Your task to perform on an android device: open app "Cash App" Image 0: 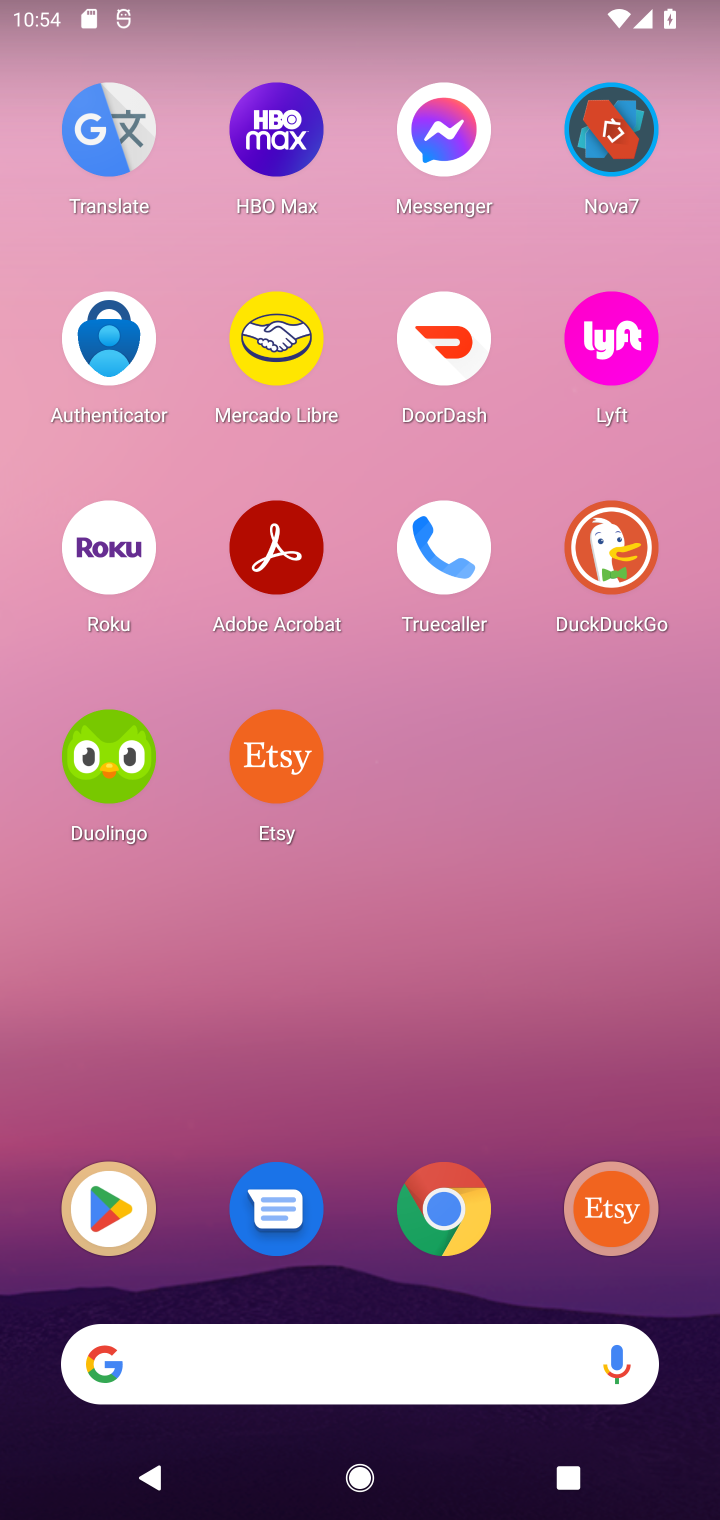
Step 0: drag from (558, 868) to (480, 0)
Your task to perform on an android device: open app "Cash App" Image 1: 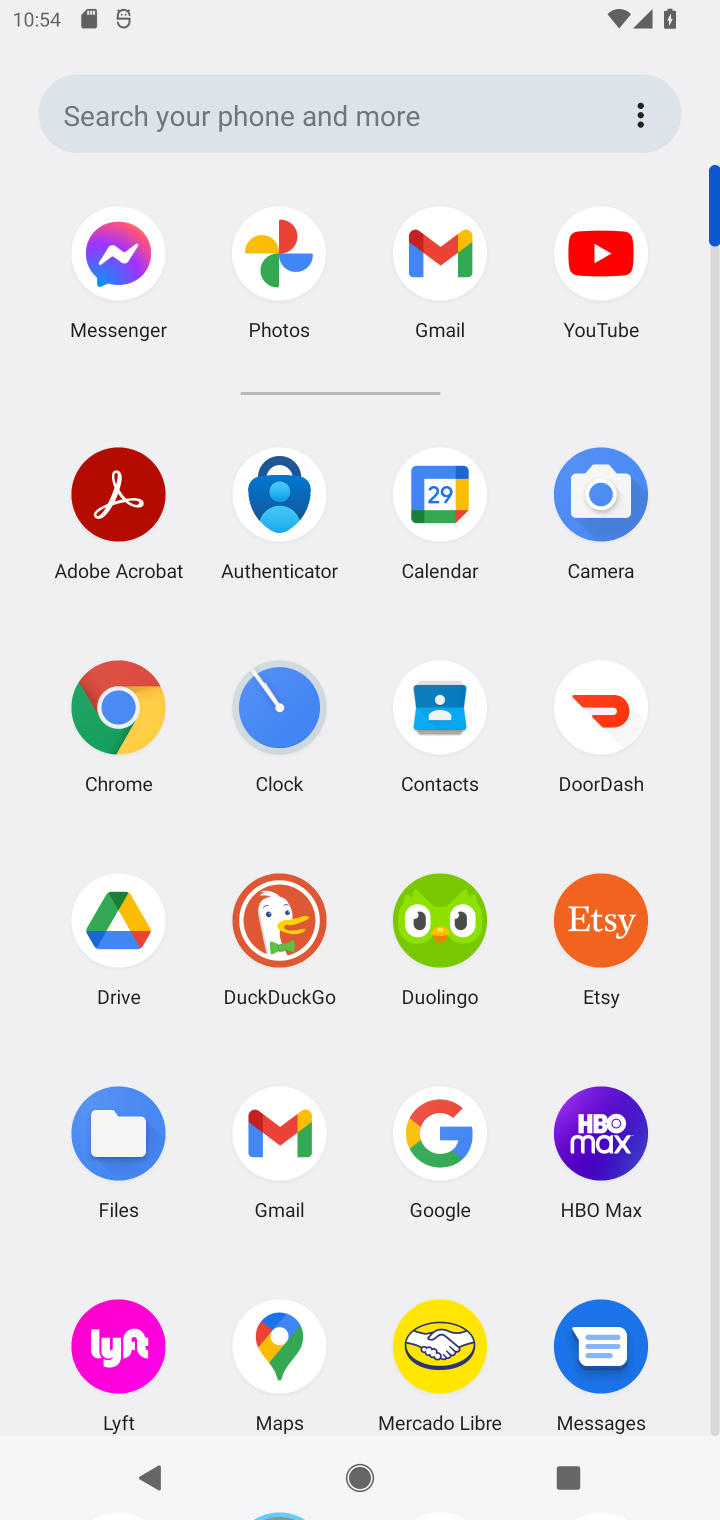
Step 1: drag from (349, 1058) to (326, 558)
Your task to perform on an android device: open app "Cash App" Image 2: 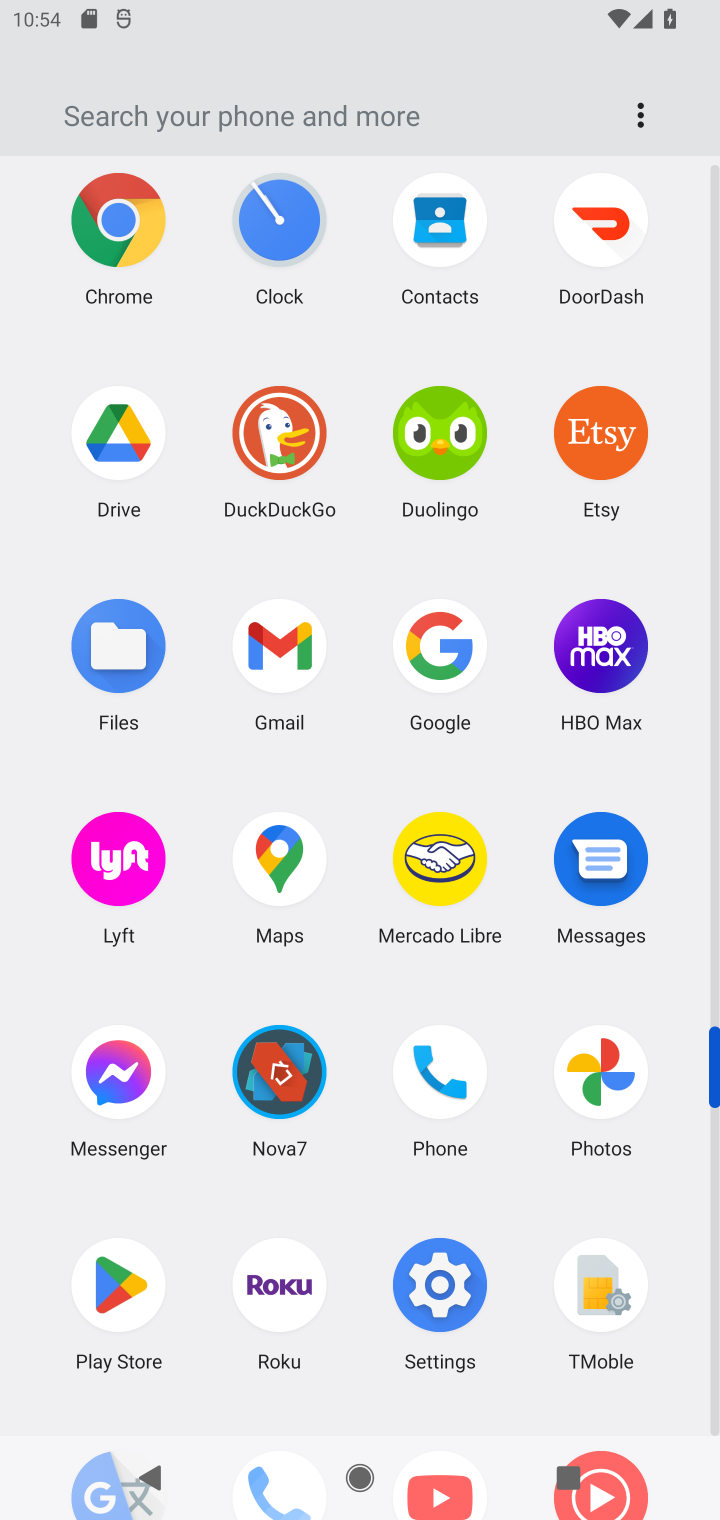
Step 2: click (131, 1292)
Your task to perform on an android device: open app "Cash App" Image 3: 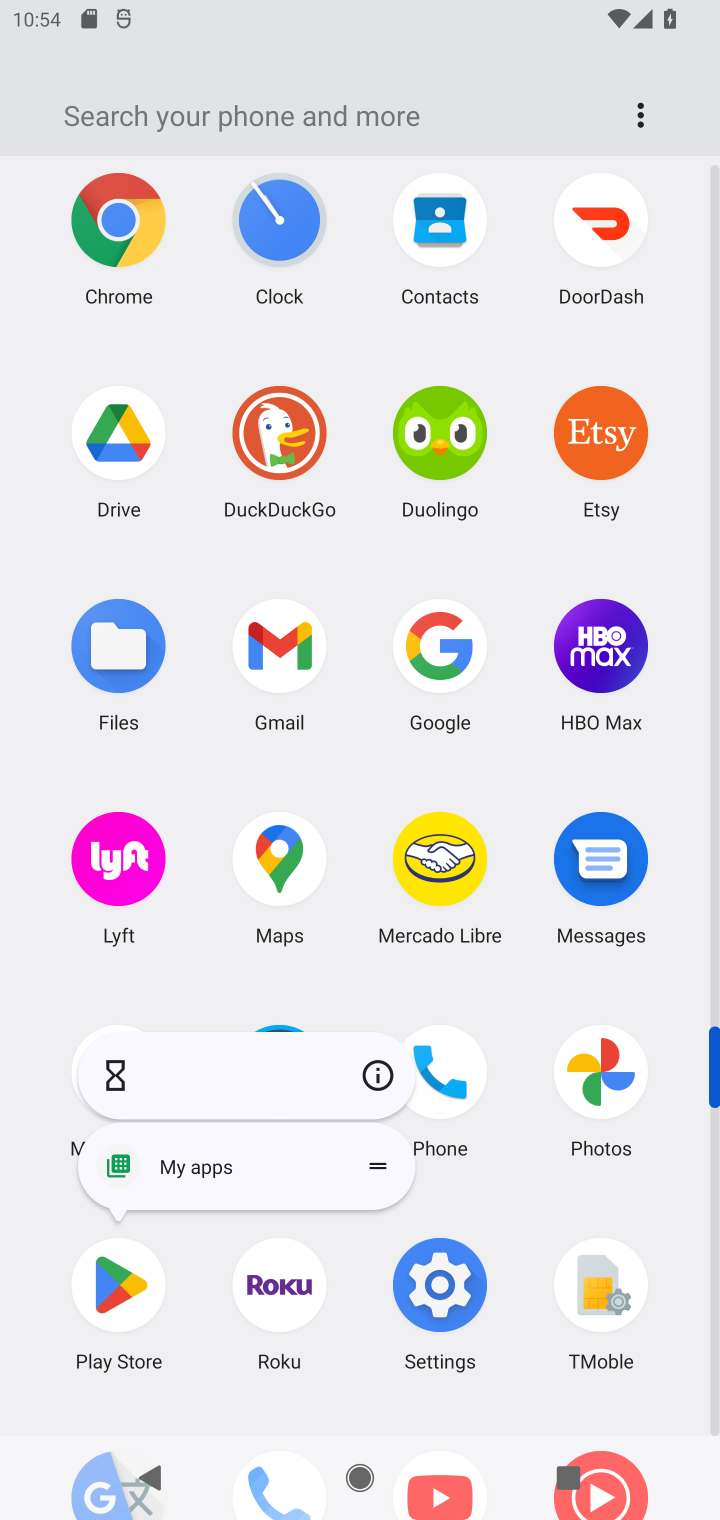
Step 3: click (103, 1283)
Your task to perform on an android device: open app "Cash App" Image 4: 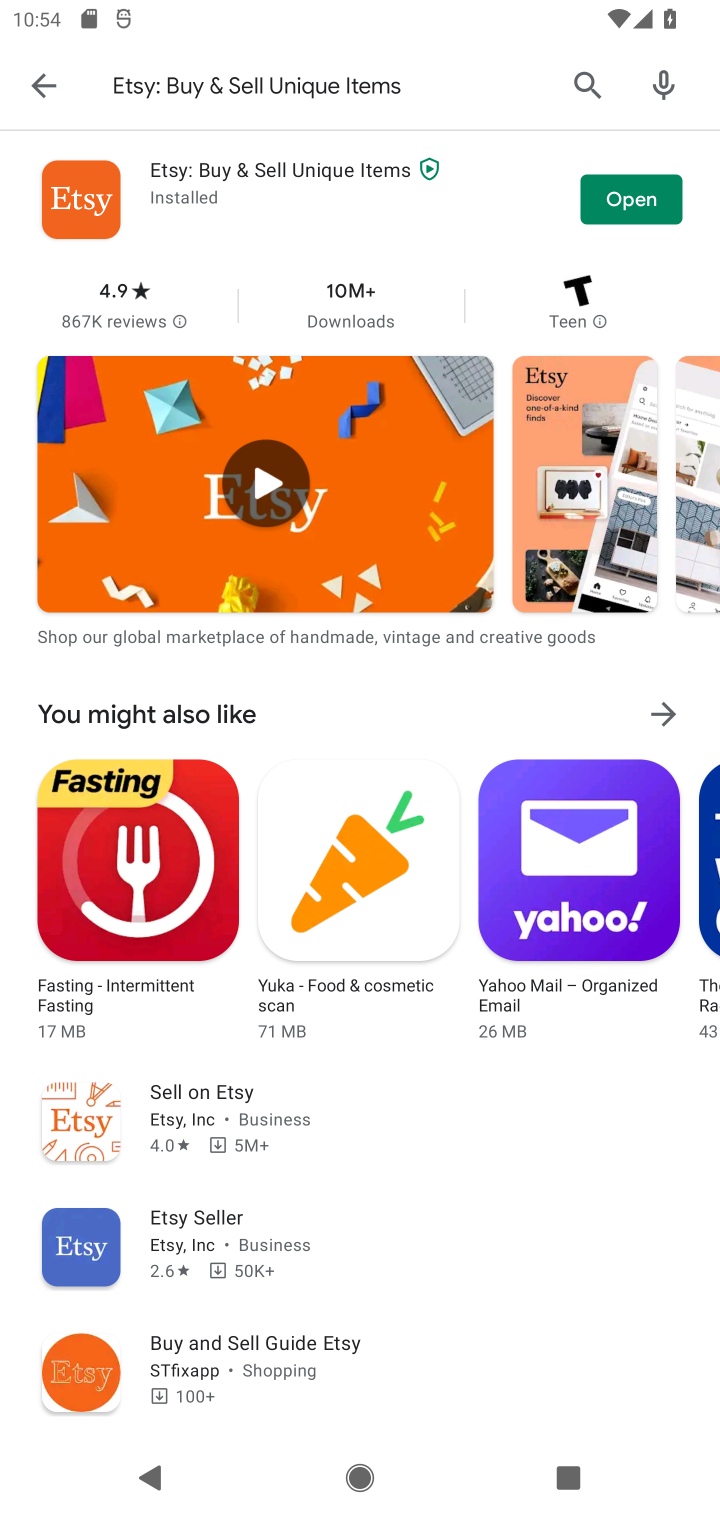
Step 4: click (326, 87)
Your task to perform on an android device: open app "Cash App" Image 5: 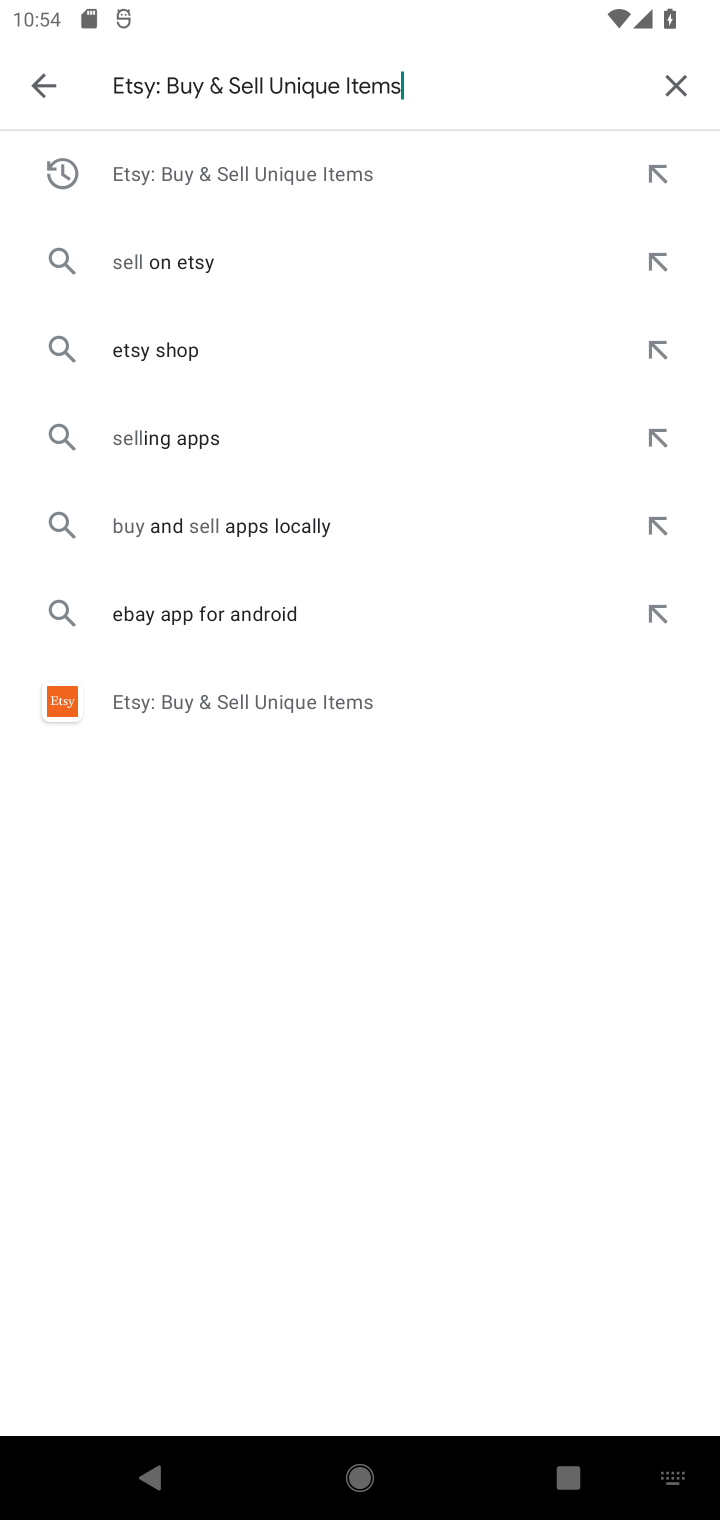
Step 5: click (672, 77)
Your task to perform on an android device: open app "Cash App" Image 6: 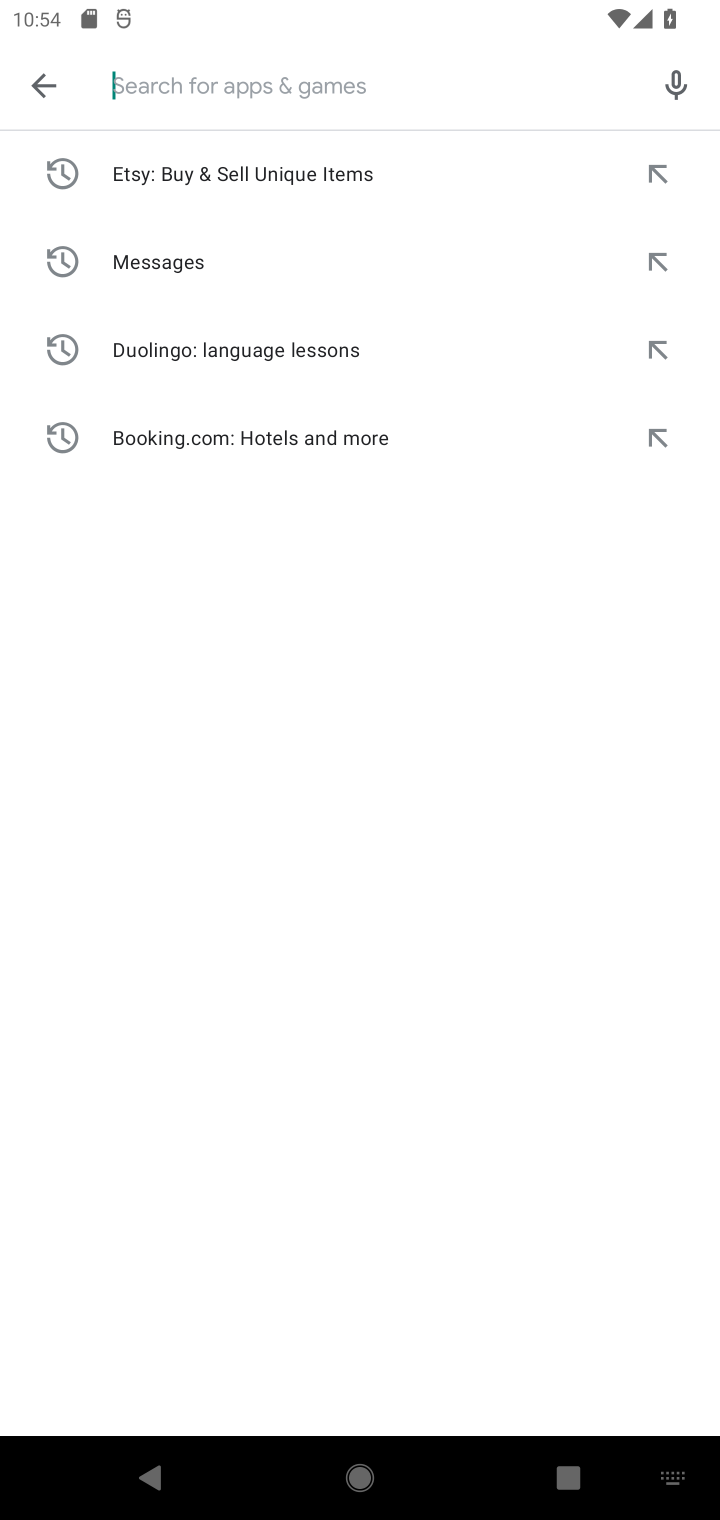
Step 6: type "Cash App"
Your task to perform on an android device: open app "Cash App" Image 7: 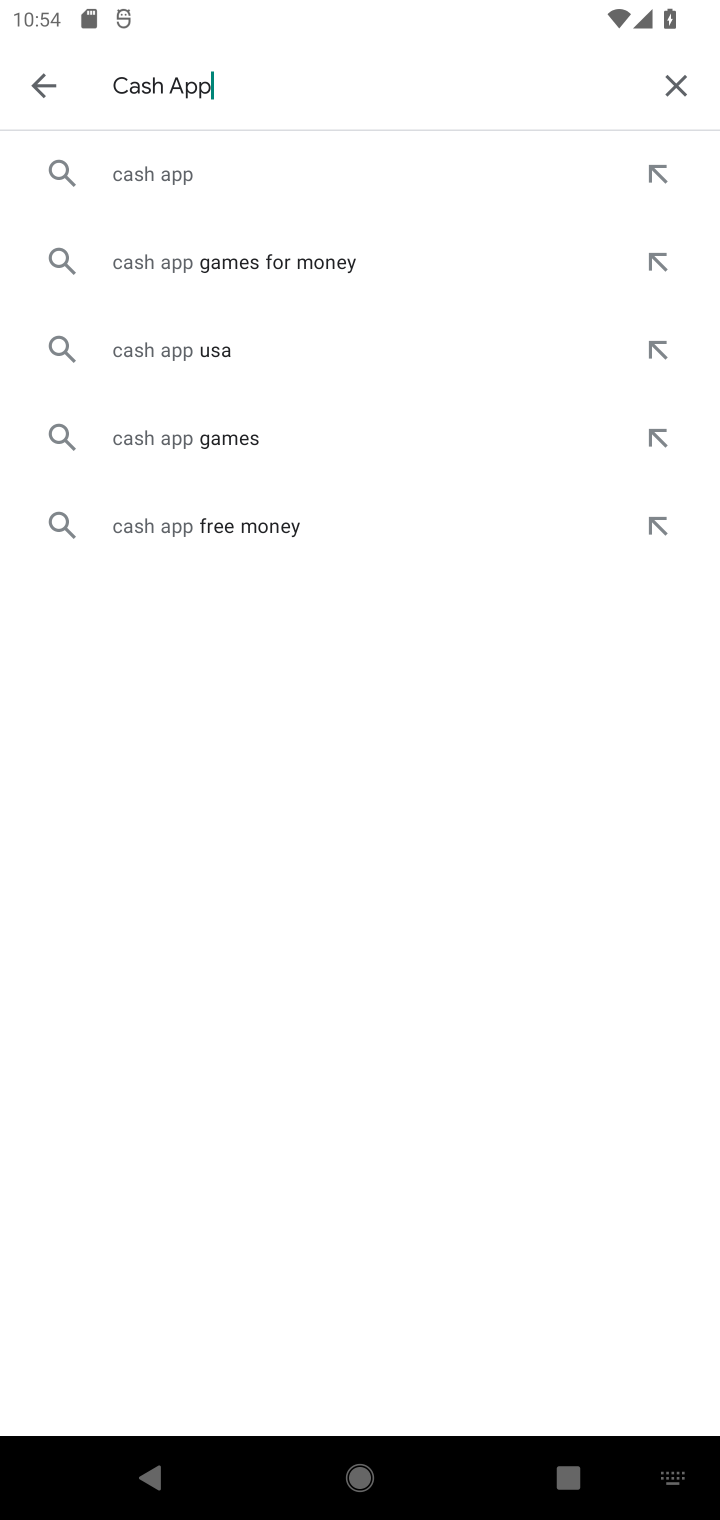
Step 7: press enter
Your task to perform on an android device: open app "Cash App" Image 8: 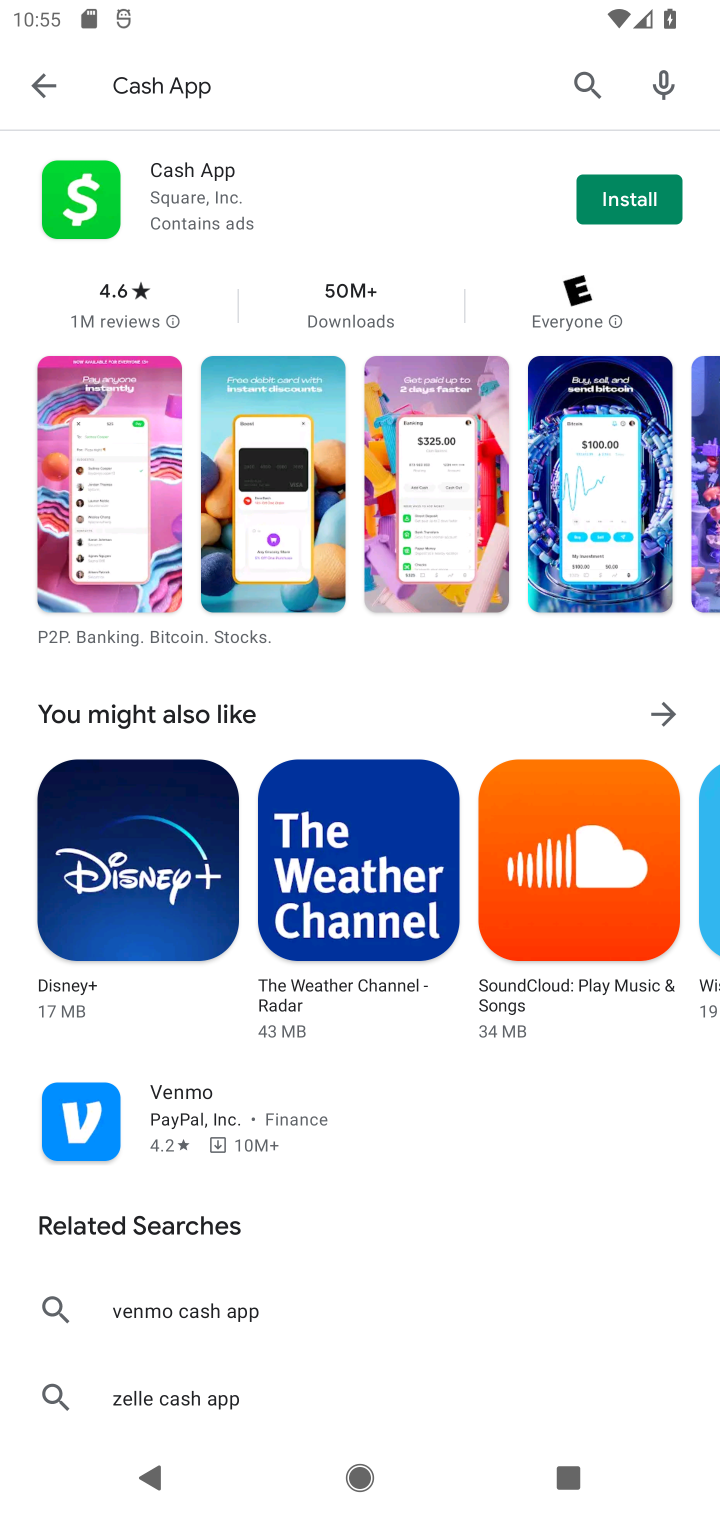
Step 8: task complete